Your task to perform on an android device: turn on bluetooth scan Image 0: 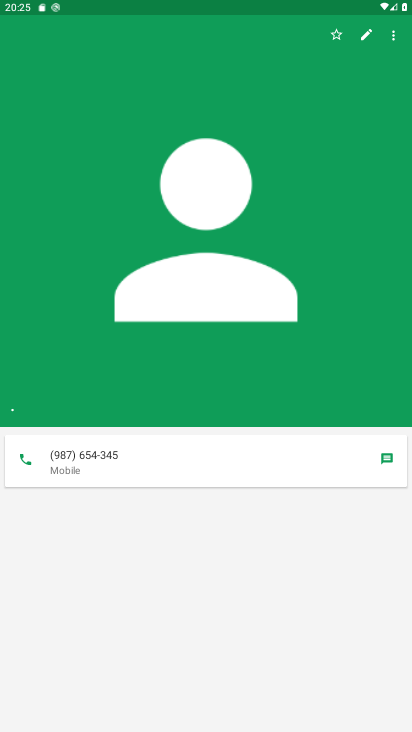
Step 0: drag from (249, 9) to (234, 667)
Your task to perform on an android device: turn on bluetooth scan Image 1: 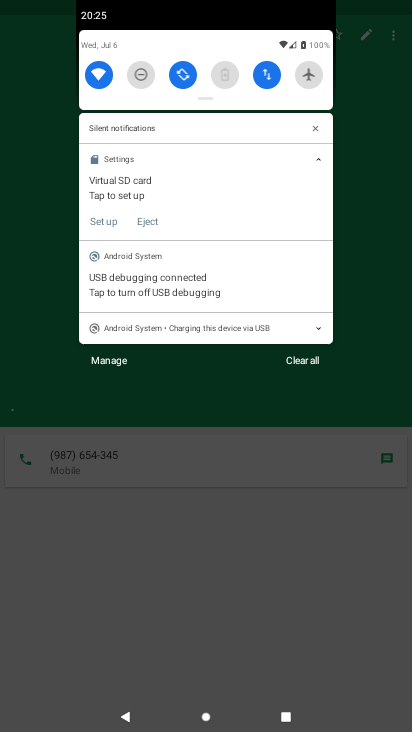
Step 1: drag from (229, 46) to (212, 509)
Your task to perform on an android device: turn on bluetooth scan Image 2: 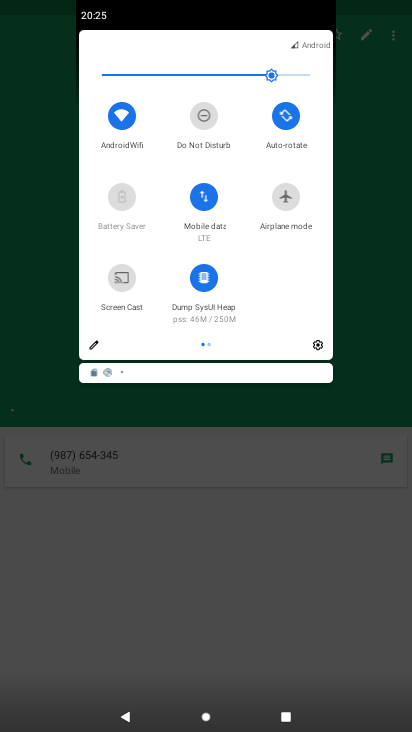
Step 2: click (314, 346)
Your task to perform on an android device: turn on bluetooth scan Image 3: 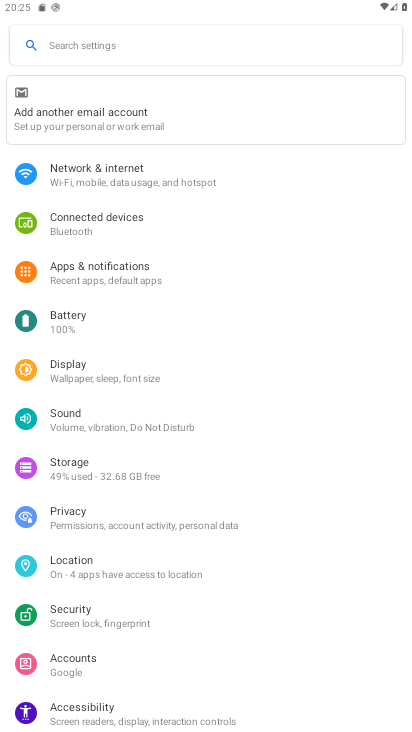
Step 3: click (94, 567)
Your task to perform on an android device: turn on bluetooth scan Image 4: 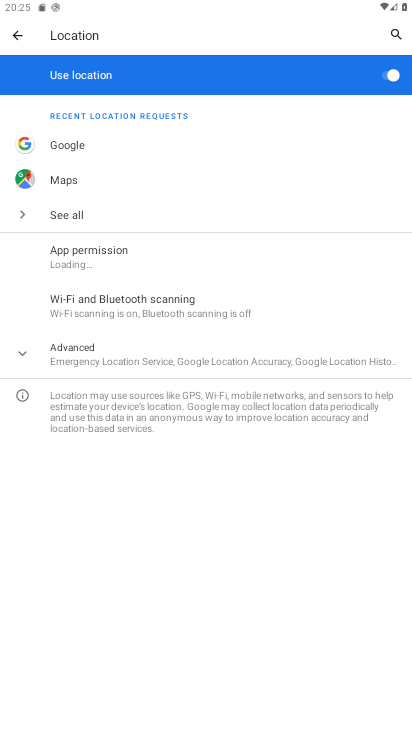
Step 4: click (262, 315)
Your task to perform on an android device: turn on bluetooth scan Image 5: 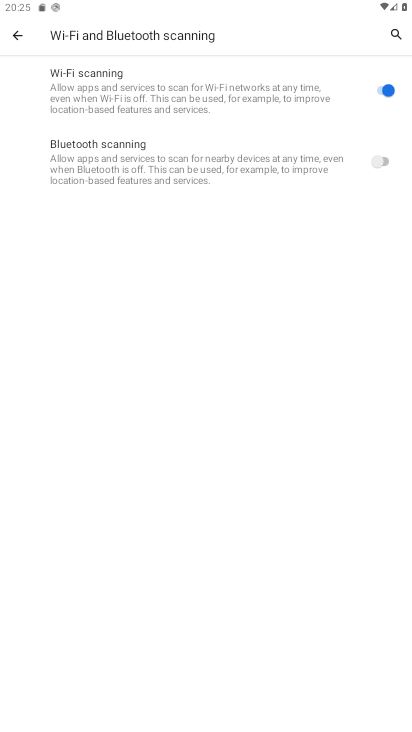
Step 5: click (382, 164)
Your task to perform on an android device: turn on bluetooth scan Image 6: 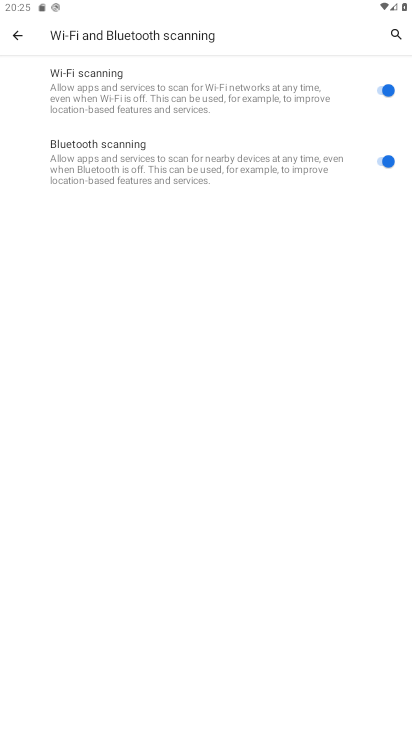
Step 6: task complete